Your task to perform on an android device: Go to Yahoo.com Image 0: 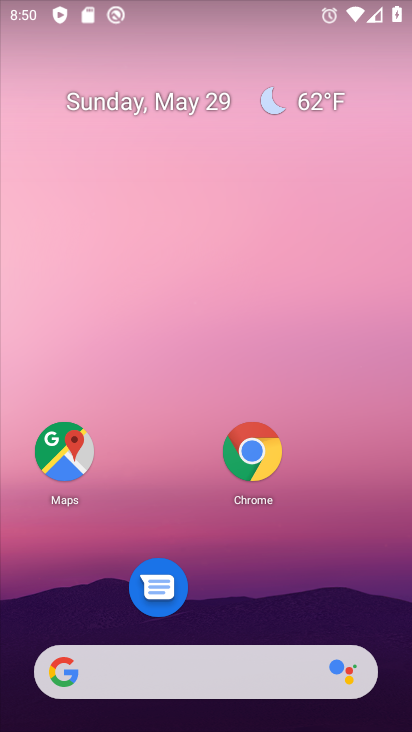
Step 0: click (253, 450)
Your task to perform on an android device: Go to Yahoo.com Image 1: 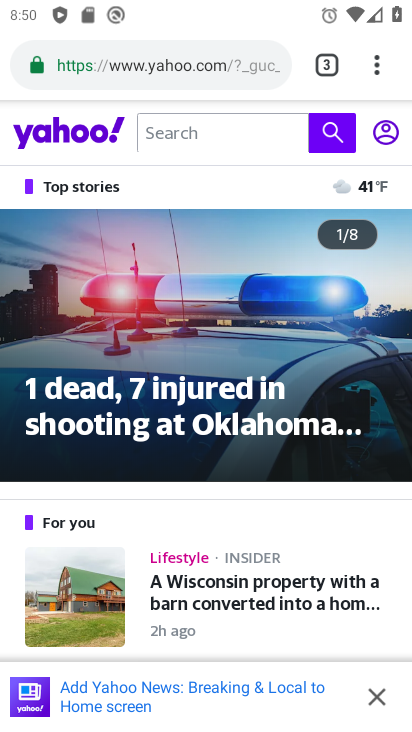
Step 1: task complete